Your task to perform on an android device: set an alarm Image 0: 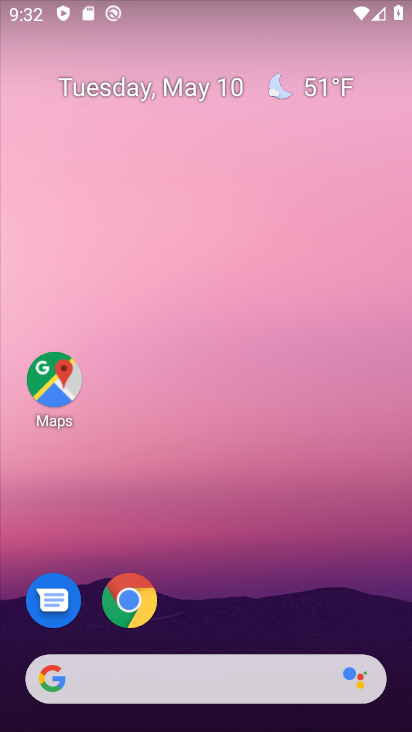
Step 0: drag from (359, 590) to (241, 86)
Your task to perform on an android device: set an alarm Image 1: 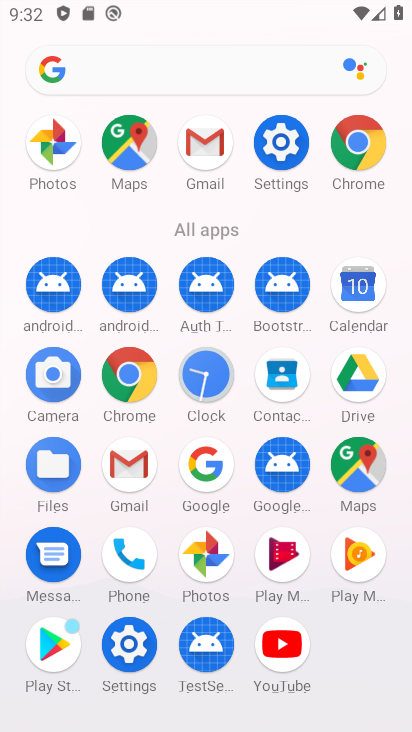
Step 1: click (205, 369)
Your task to perform on an android device: set an alarm Image 2: 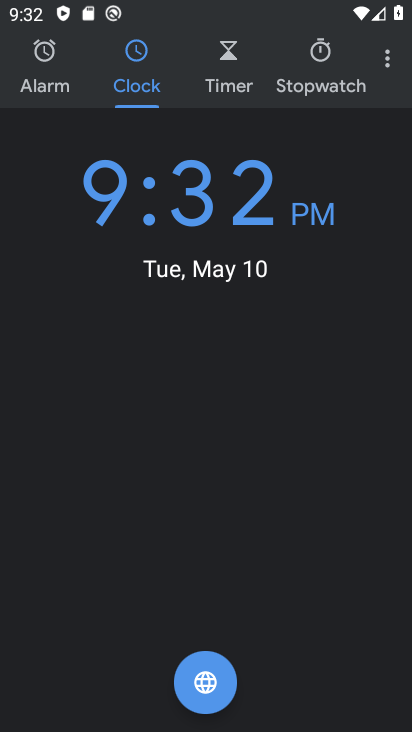
Step 2: click (44, 56)
Your task to perform on an android device: set an alarm Image 3: 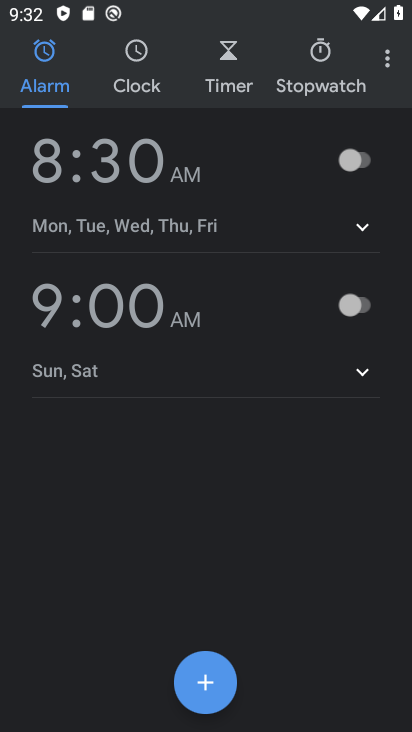
Step 3: click (64, 166)
Your task to perform on an android device: set an alarm Image 4: 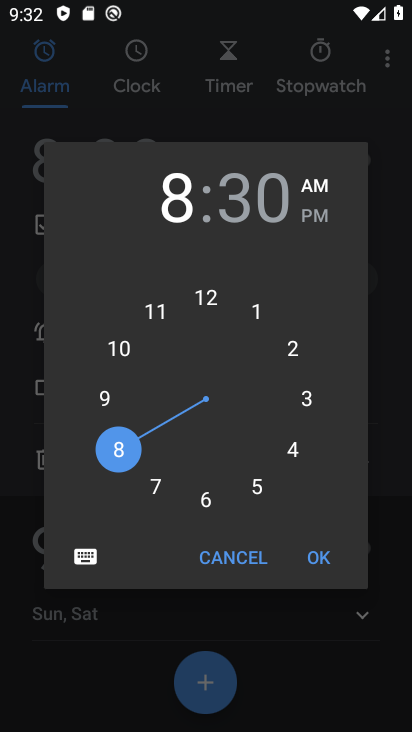
Step 4: click (208, 499)
Your task to perform on an android device: set an alarm Image 5: 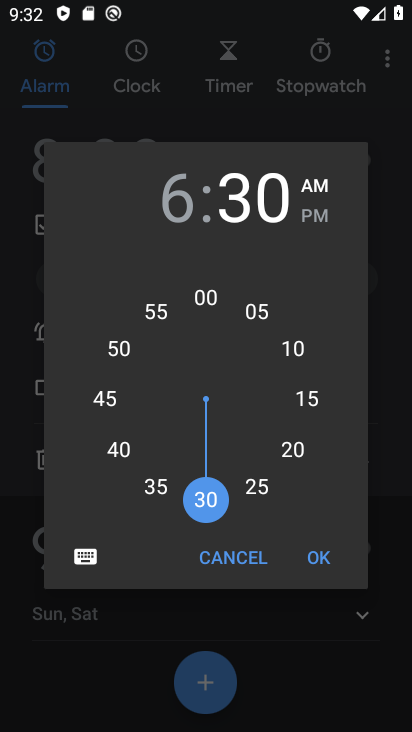
Step 5: click (302, 392)
Your task to perform on an android device: set an alarm Image 6: 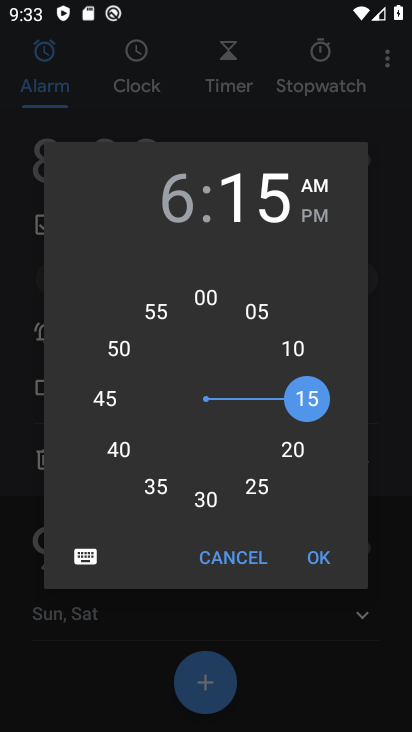
Step 6: click (324, 570)
Your task to perform on an android device: set an alarm Image 7: 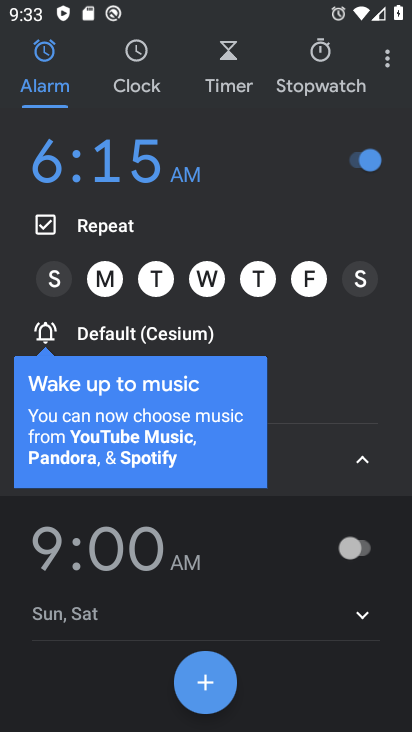
Step 7: click (368, 457)
Your task to perform on an android device: set an alarm Image 8: 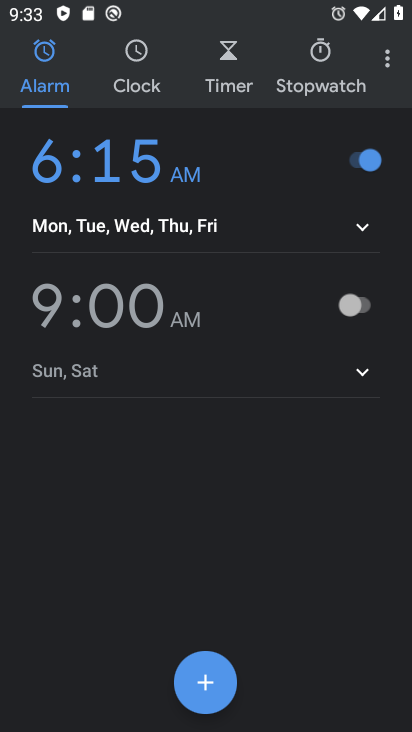
Step 8: task complete